Your task to perform on an android device: turn smart compose on in the gmail app Image 0: 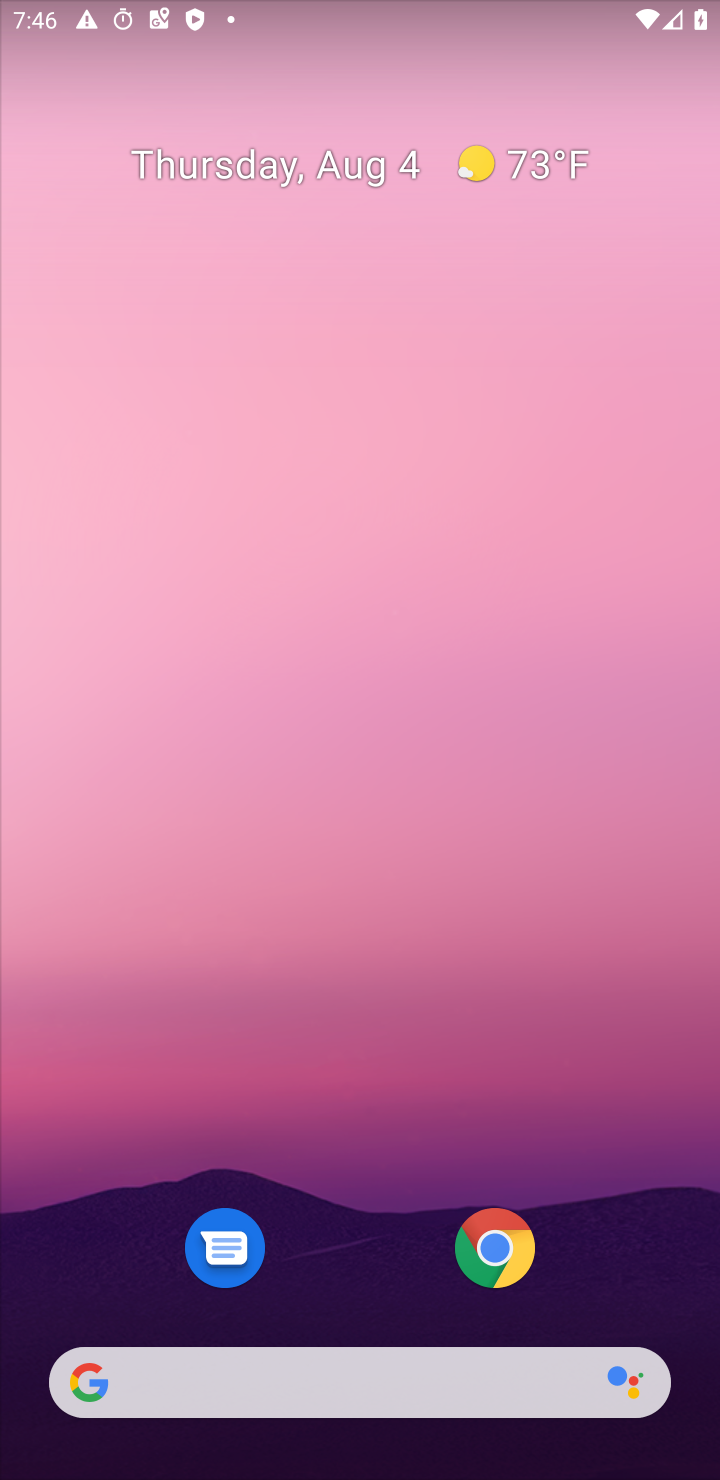
Step 0: drag from (488, 1411) to (139, 383)
Your task to perform on an android device: turn smart compose on in the gmail app Image 1: 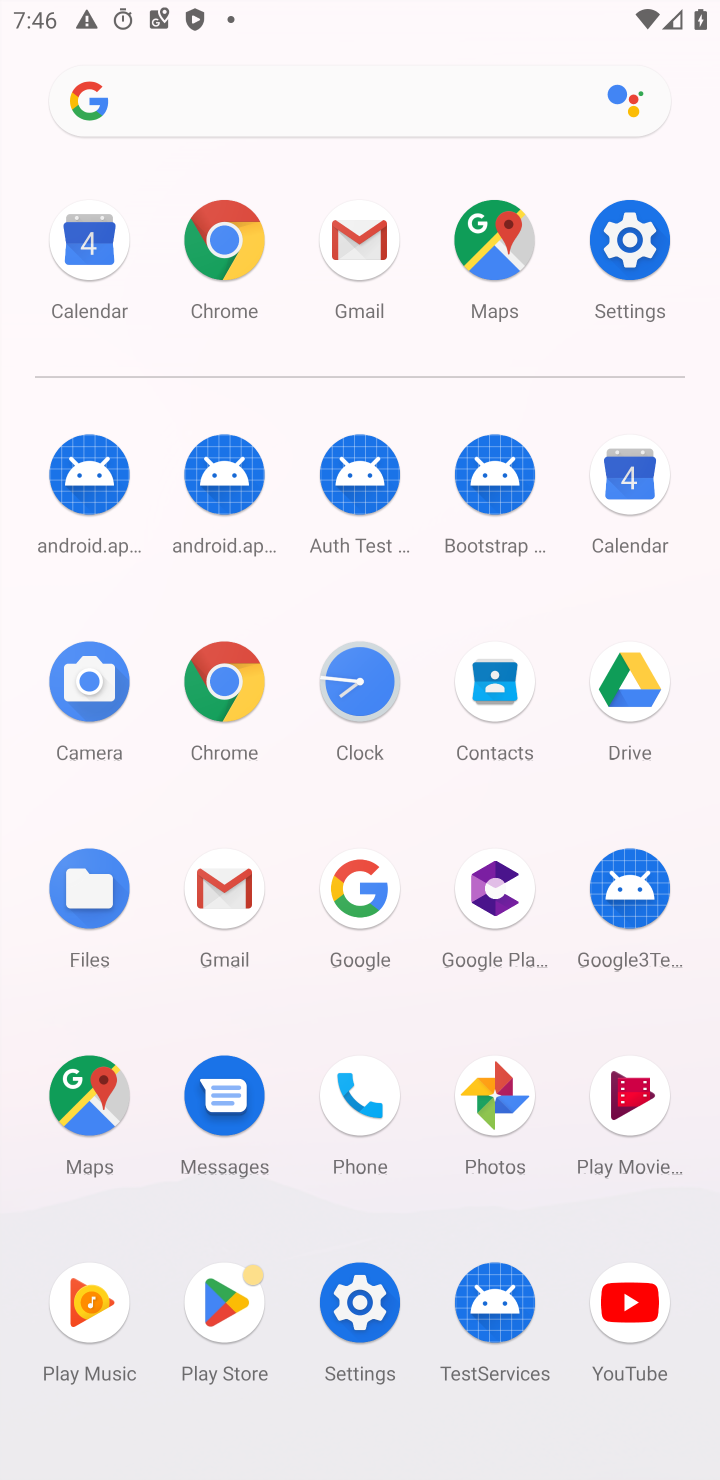
Step 1: click (216, 907)
Your task to perform on an android device: turn smart compose on in the gmail app Image 2: 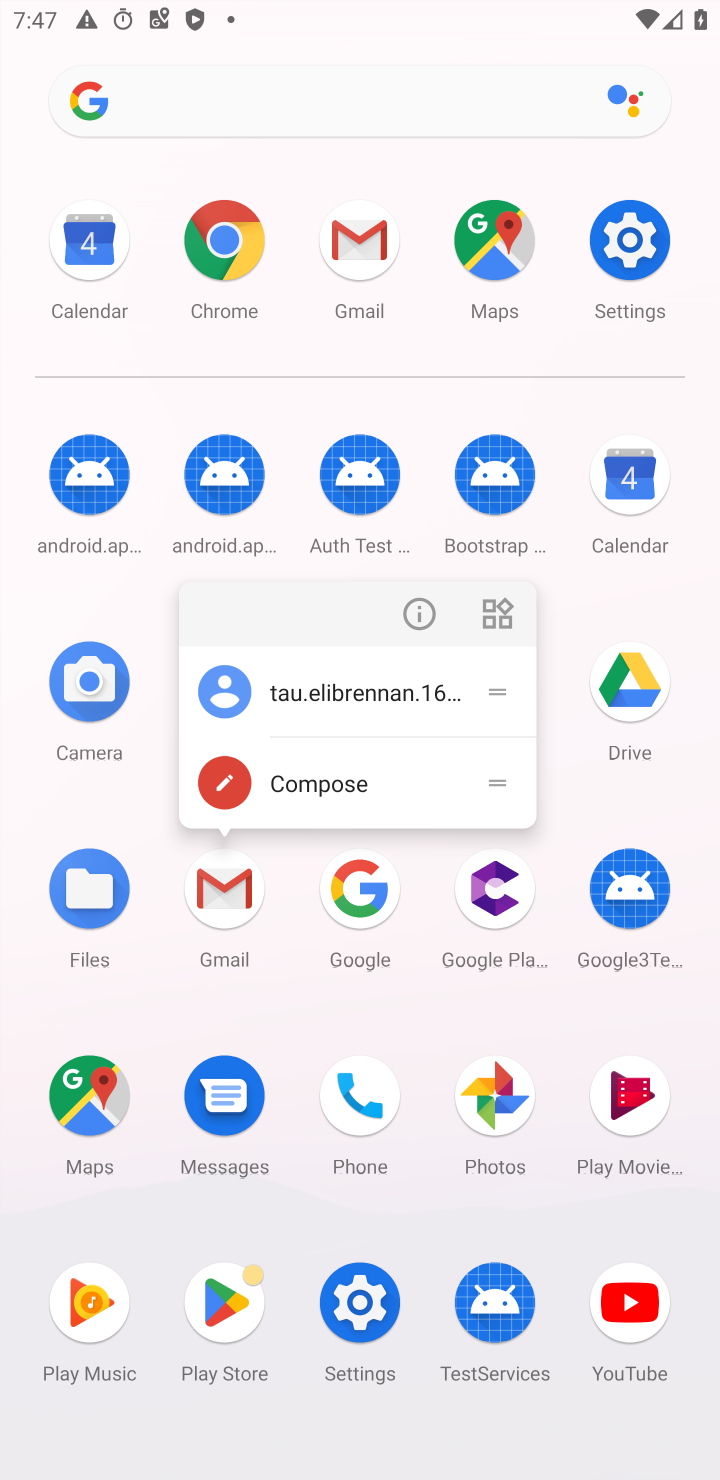
Step 2: click (236, 911)
Your task to perform on an android device: turn smart compose on in the gmail app Image 3: 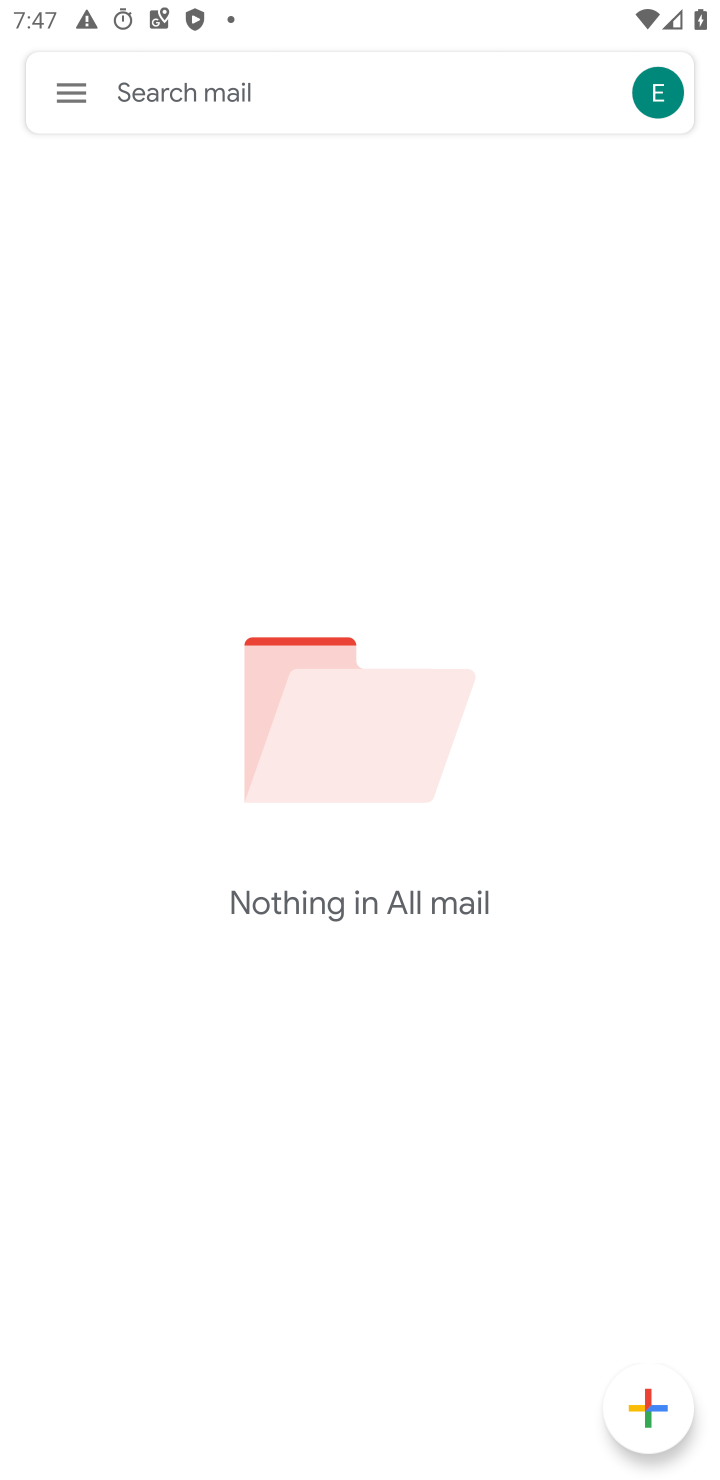
Step 3: click (75, 93)
Your task to perform on an android device: turn smart compose on in the gmail app Image 4: 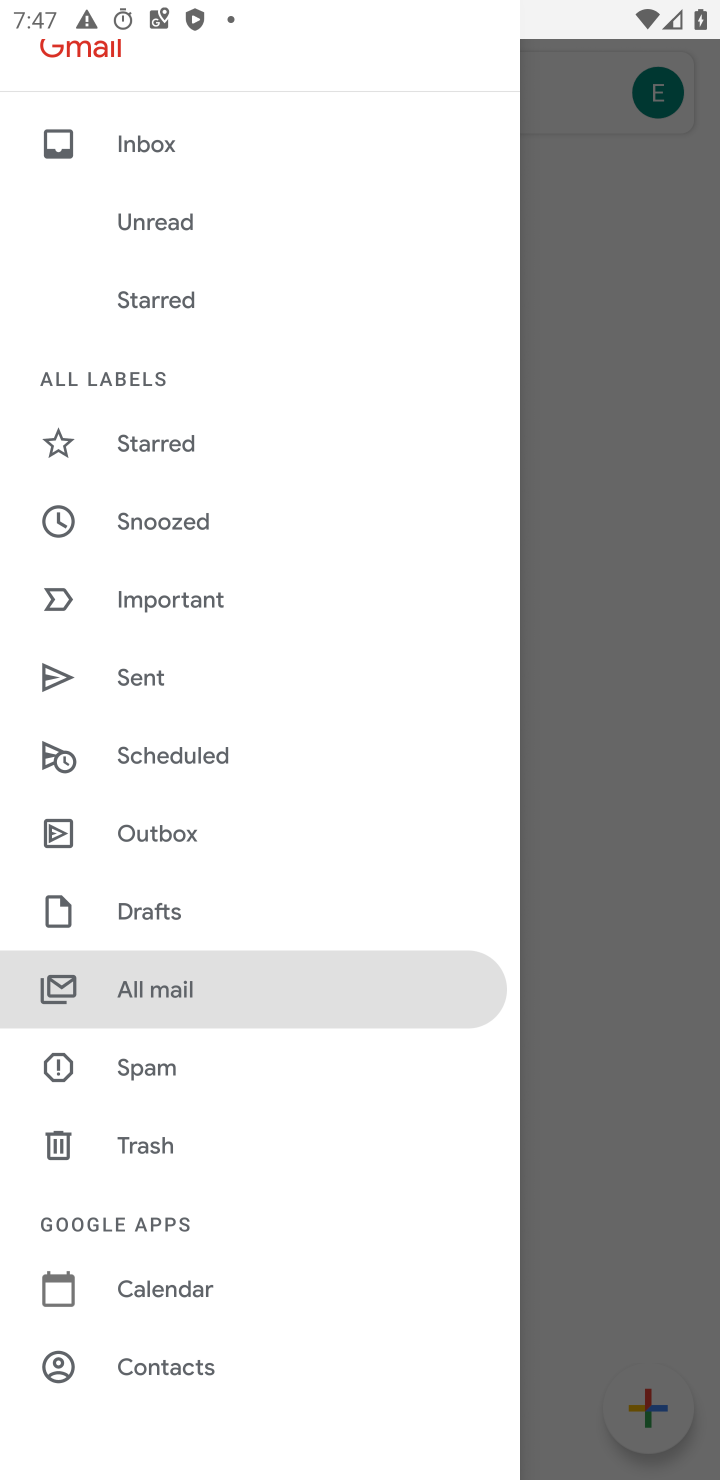
Step 4: drag from (228, 1157) to (201, 919)
Your task to perform on an android device: turn smart compose on in the gmail app Image 5: 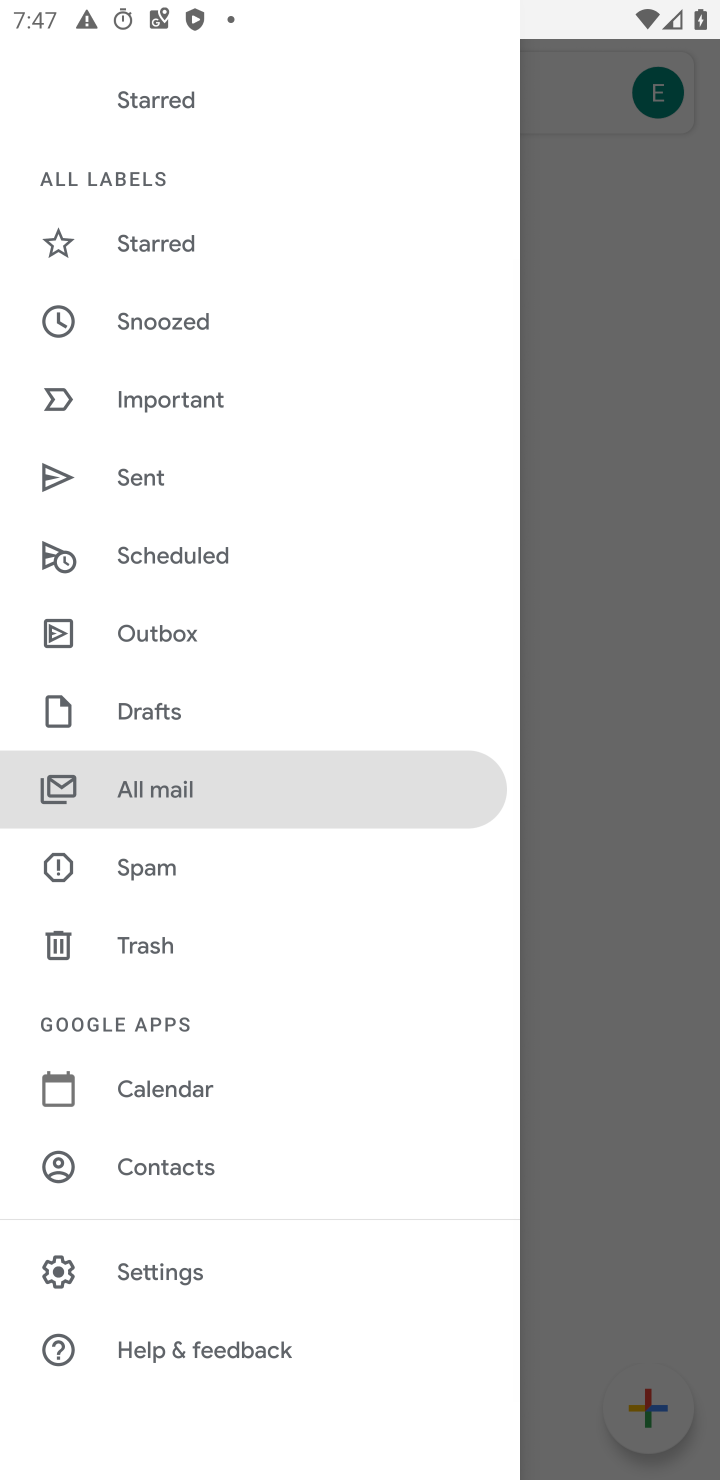
Step 5: click (181, 1258)
Your task to perform on an android device: turn smart compose on in the gmail app Image 6: 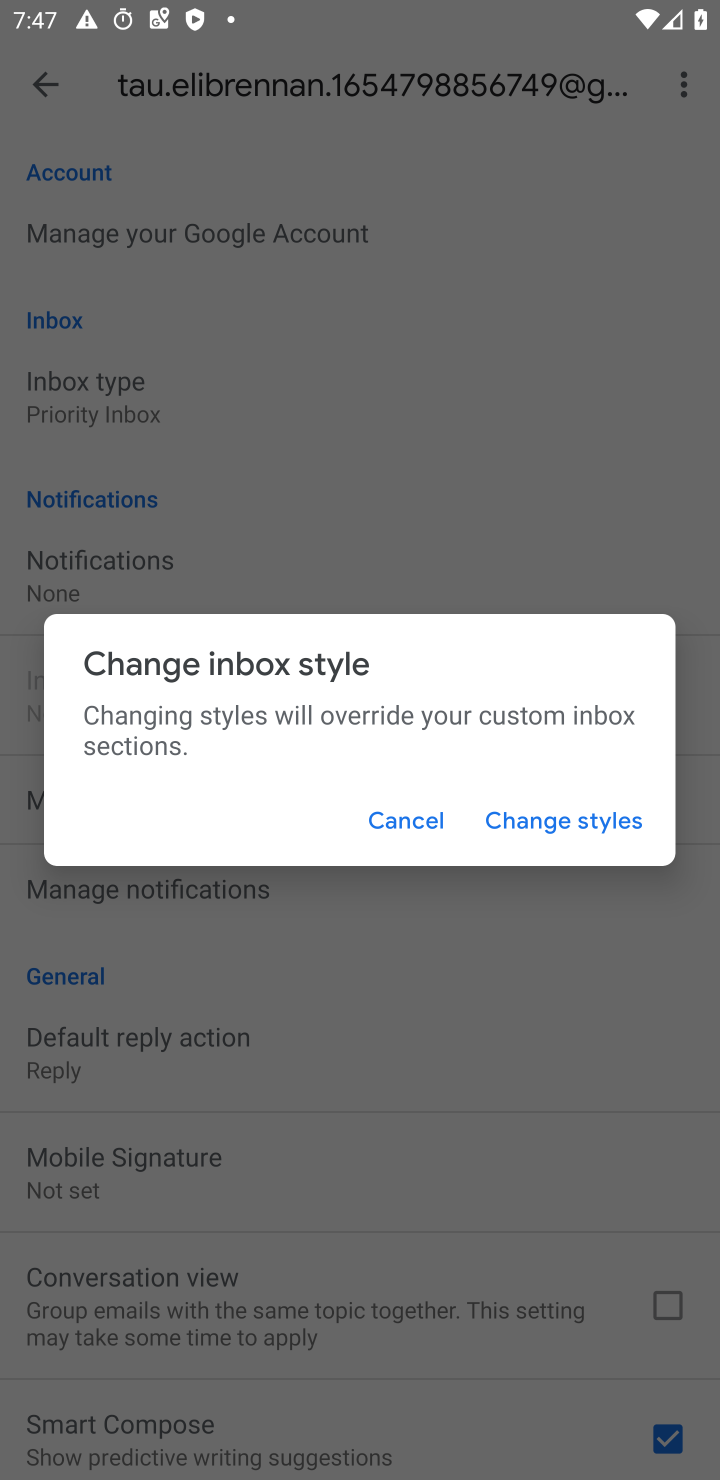
Step 6: click (406, 801)
Your task to perform on an android device: turn smart compose on in the gmail app Image 7: 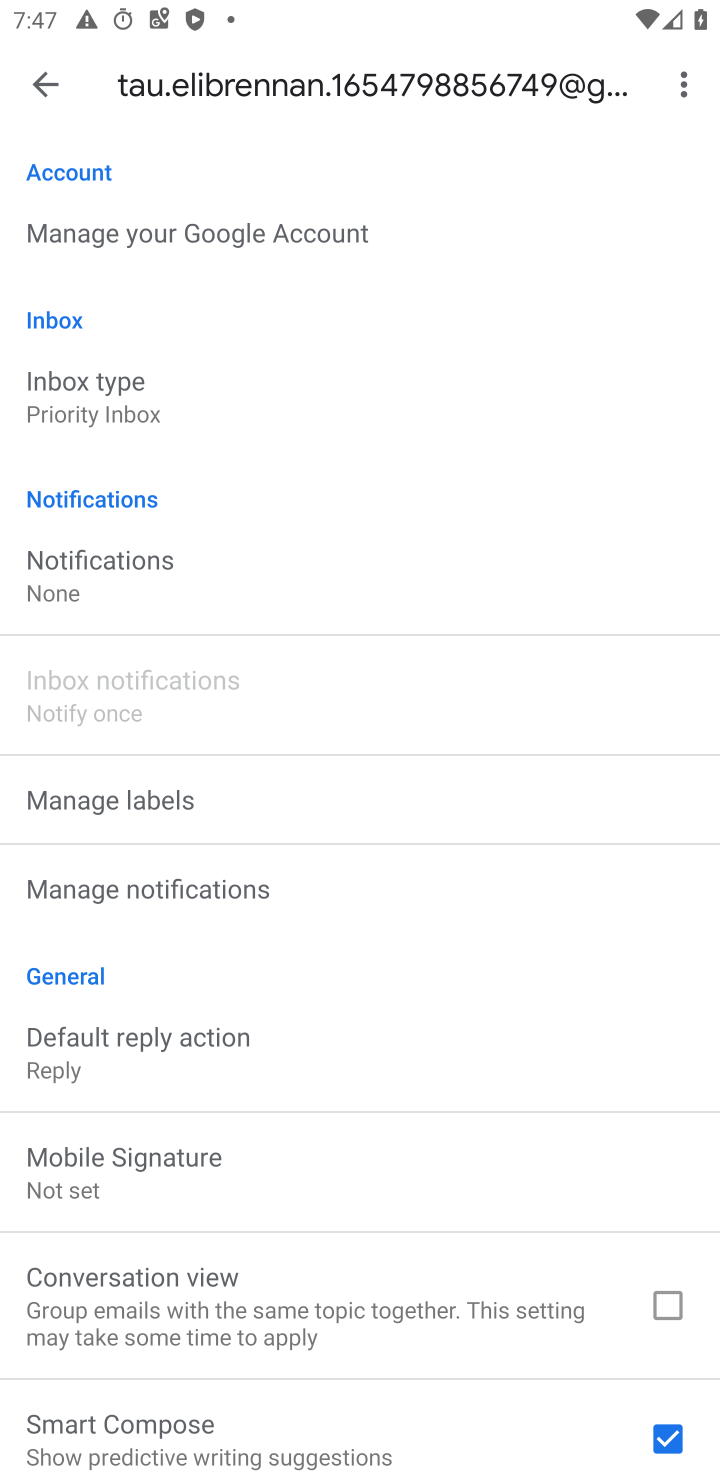
Step 7: drag from (464, 1077) to (351, 599)
Your task to perform on an android device: turn smart compose on in the gmail app Image 8: 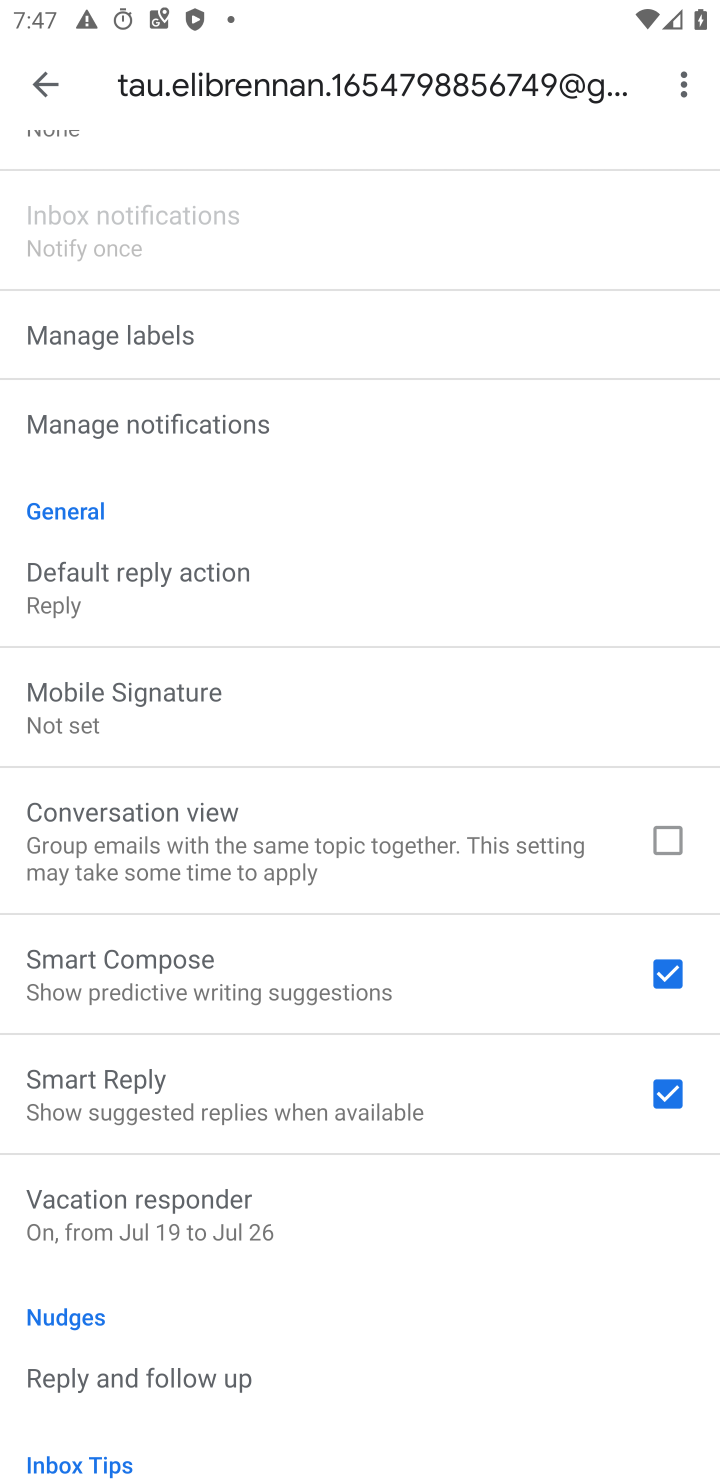
Step 8: click (544, 1094)
Your task to perform on an android device: turn smart compose on in the gmail app Image 9: 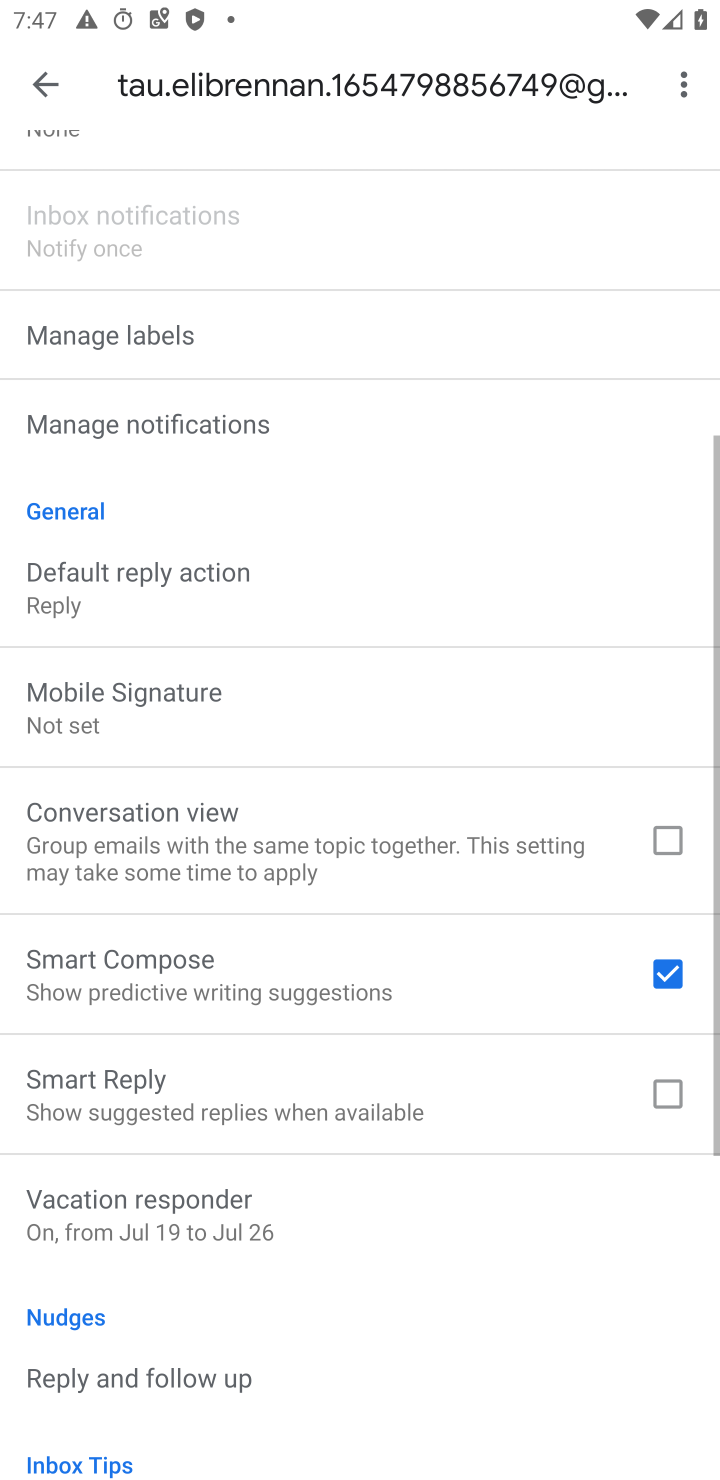
Step 9: click (544, 1094)
Your task to perform on an android device: turn smart compose on in the gmail app Image 10: 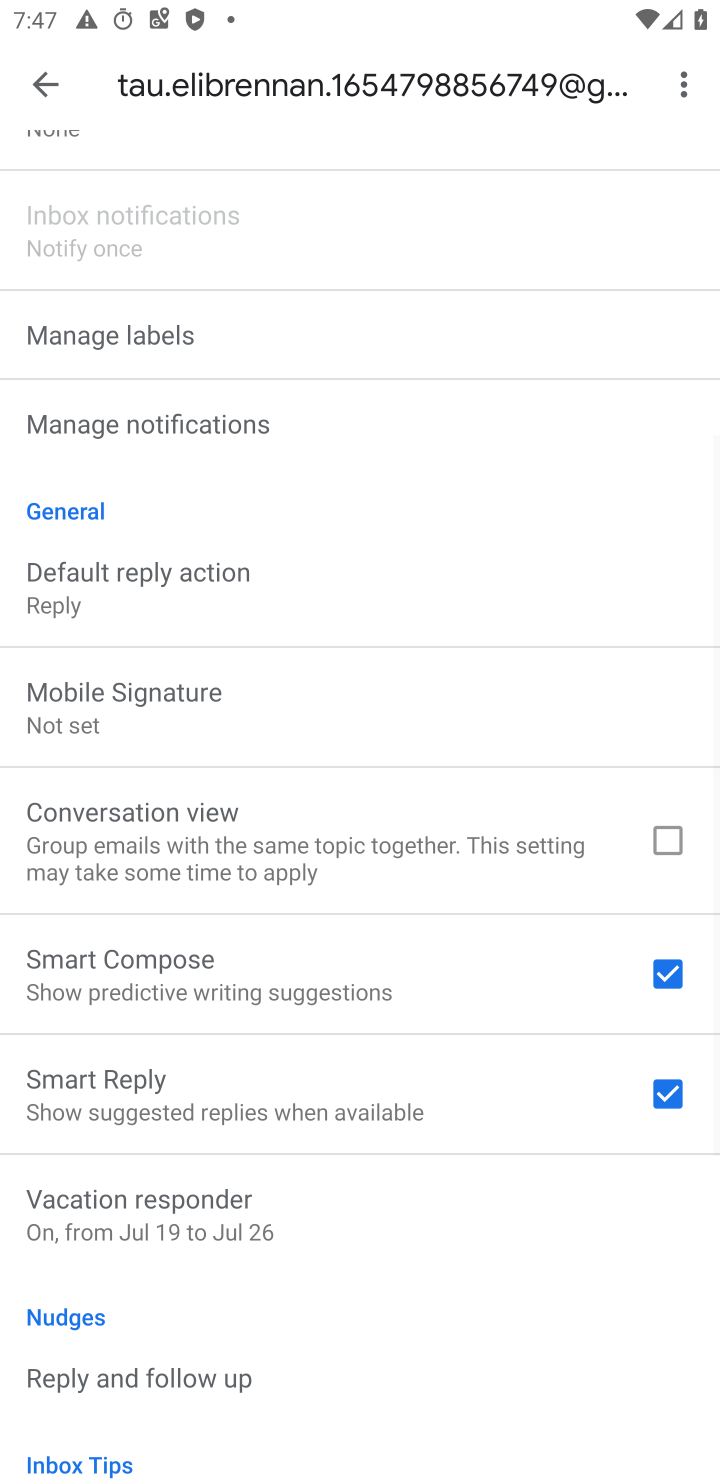
Step 10: task complete